Your task to perform on an android device: toggle notification dots Image 0: 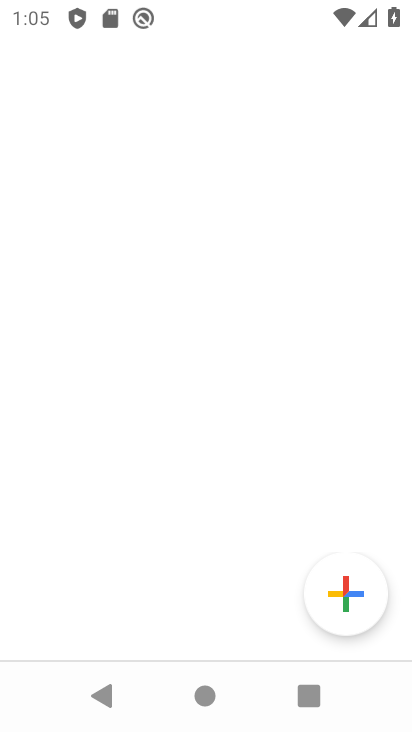
Step 0: press back button
Your task to perform on an android device: toggle notification dots Image 1: 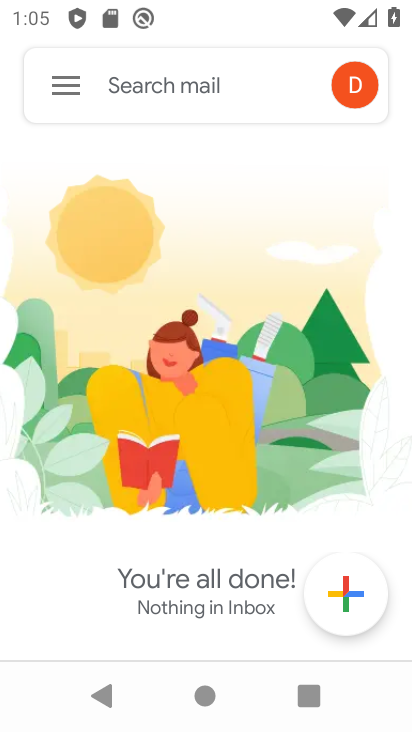
Step 1: press back button
Your task to perform on an android device: toggle notification dots Image 2: 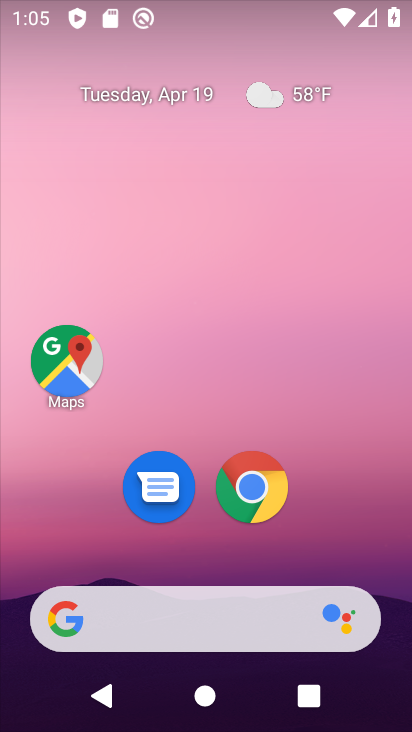
Step 2: drag from (205, 722) to (218, 35)
Your task to perform on an android device: toggle notification dots Image 3: 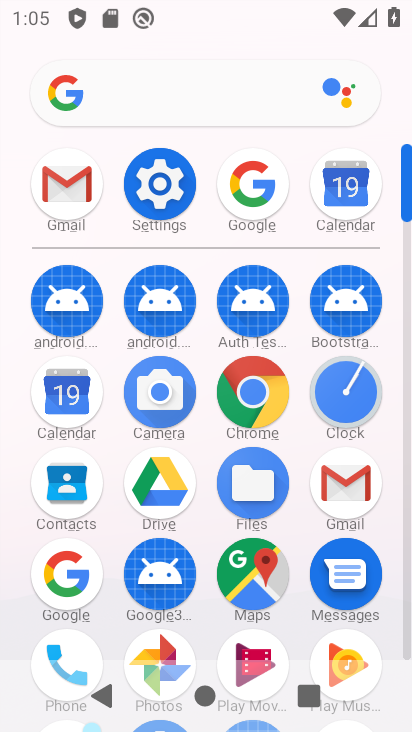
Step 3: click (144, 182)
Your task to perform on an android device: toggle notification dots Image 4: 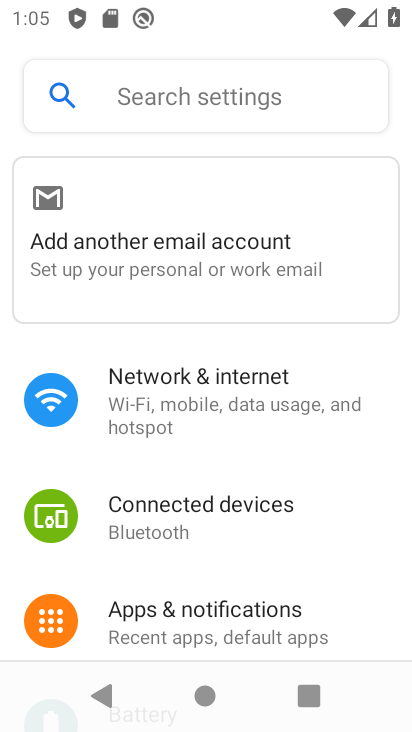
Step 4: click (217, 610)
Your task to perform on an android device: toggle notification dots Image 5: 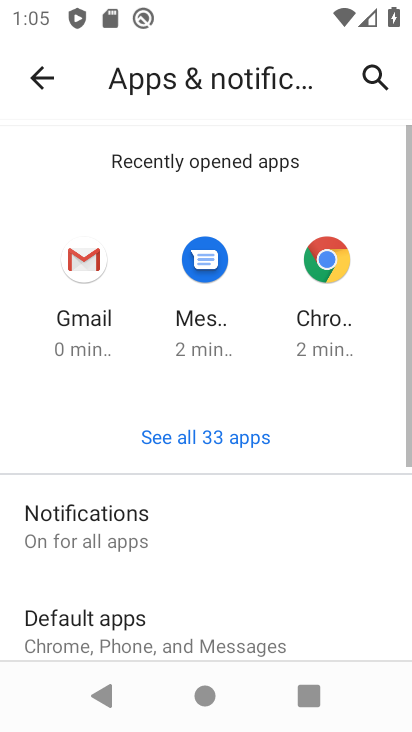
Step 5: click (92, 533)
Your task to perform on an android device: toggle notification dots Image 6: 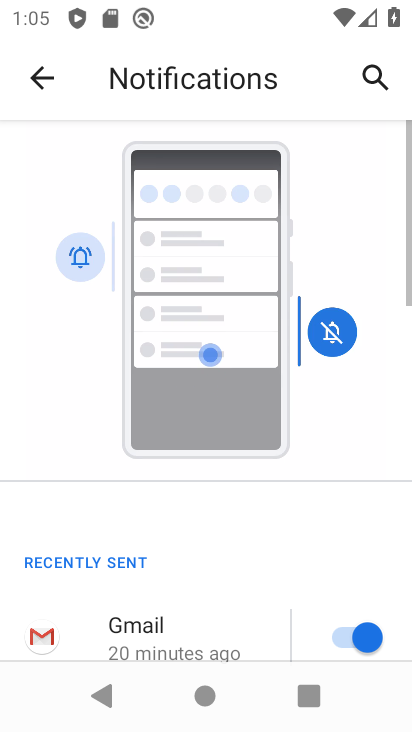
Step 6: drag from (218, 638) to (229, 201)
Your task to perform on an android device: toggle notification dots Image 7: 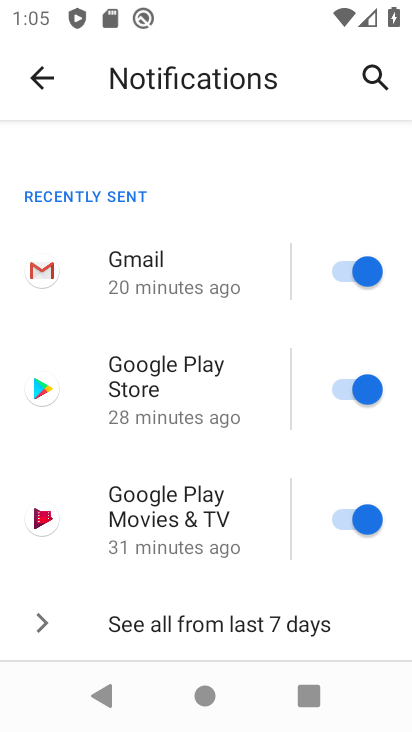
Step 7: drag from (194, 636) to (202, 196)
Your task to perform on an android device: toggle notification dots Image 8: 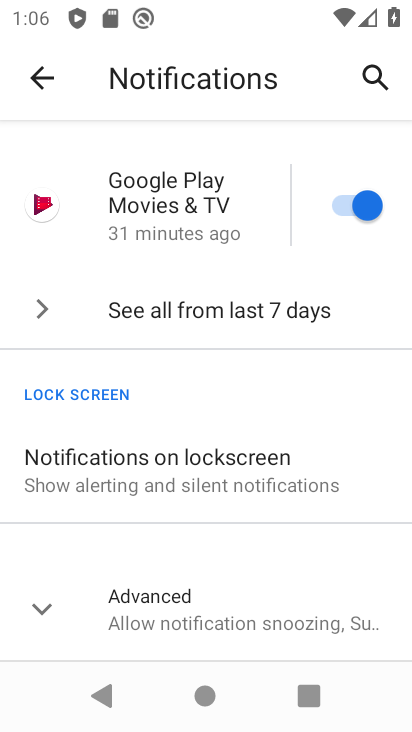
Step 8: click (182, 600)
Your task to perform on an android device: toggle notification dots Image 9: 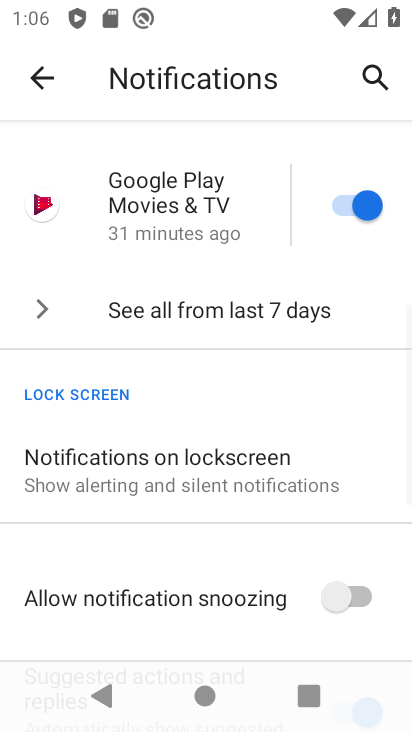
Step 9: drag from (204, 637) to (222, 188)
Your task to perform on an android device: toggle notification dots Image 10: 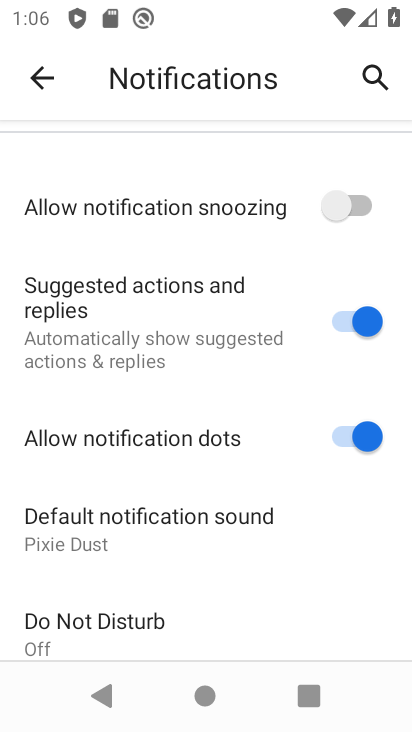
Step 10: click (341, 436)
Your task to perform on an android device: toggle notification dots Image 11: 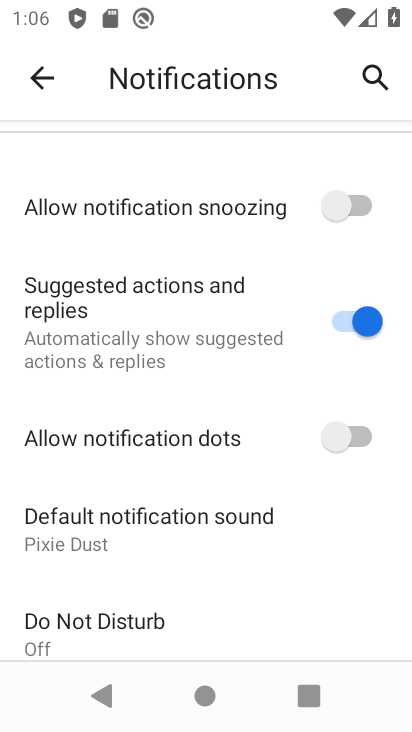
Step 11: task complete